Your task to perform on an android device: Open Chrome and go to settings Image 0: 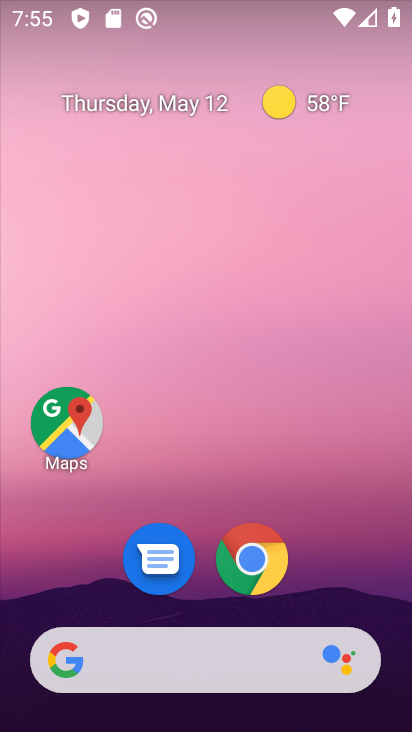
Step 0: click (249, 559)
Your task to perform on an android device: Open Chrome and go to settings Image 1: 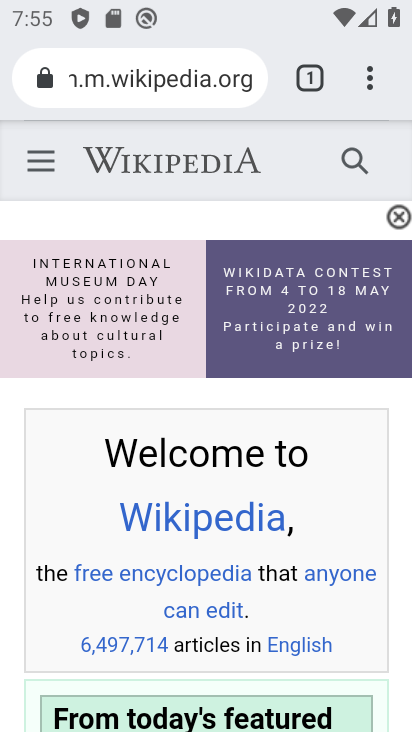
Step 1: click (369, 79)
Your task to perform on an android device: Open Chrome and go to settings Image 2: 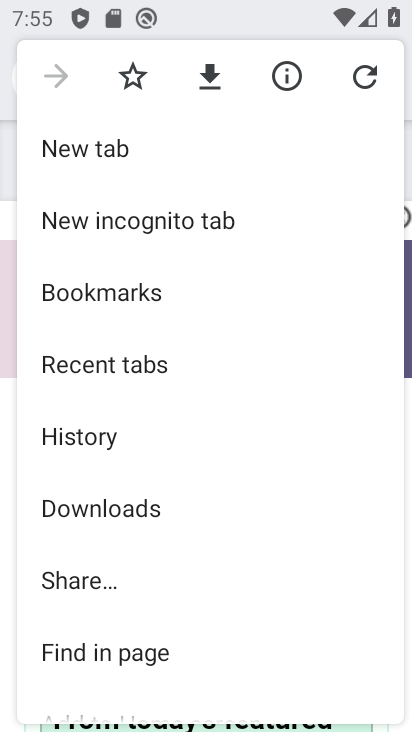
Step 2: drag from (185, 491) to (224, 380)
Your task to perform on an android device: Open Chrome and go to settings Image 3: 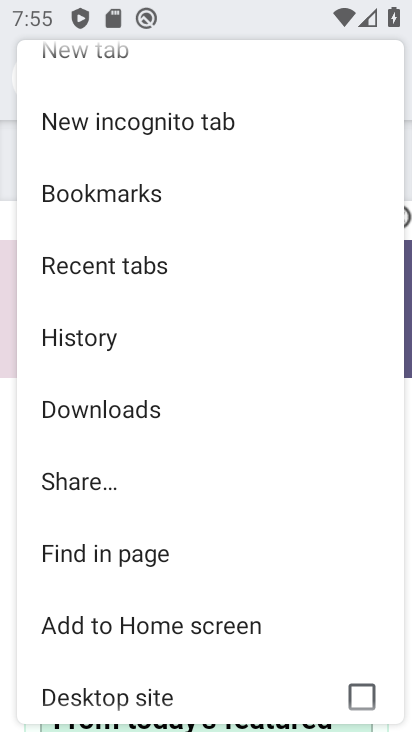
Step 3: drag from (197, 565) to (252, 432)
Your task to perform on an android device: Open Chrome and go to settings Image 4: 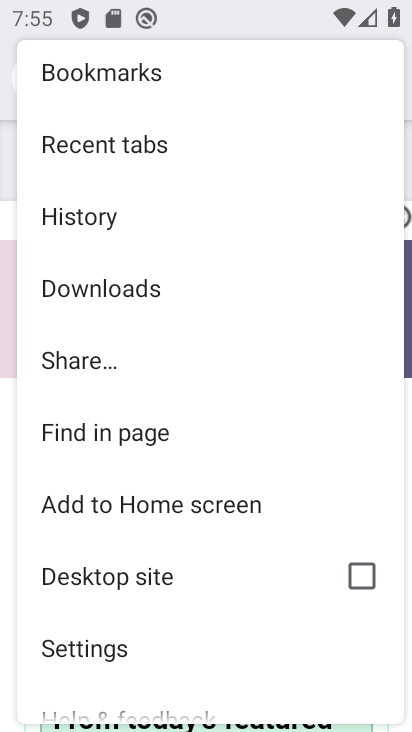
Step 4: drag from (166, 624) to (241, 485)
Your task to perform on an android device: Open Chrome and go to settings Image 5: 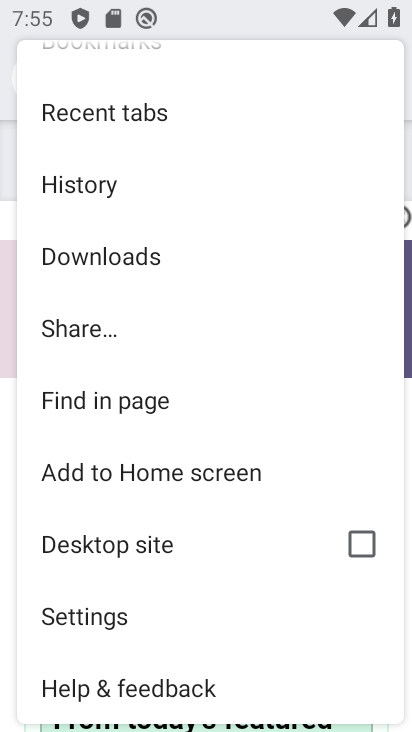
Step 5: click (96, 622)
Your task to perform on an android device: Open Chrome and go to settings Image 6: 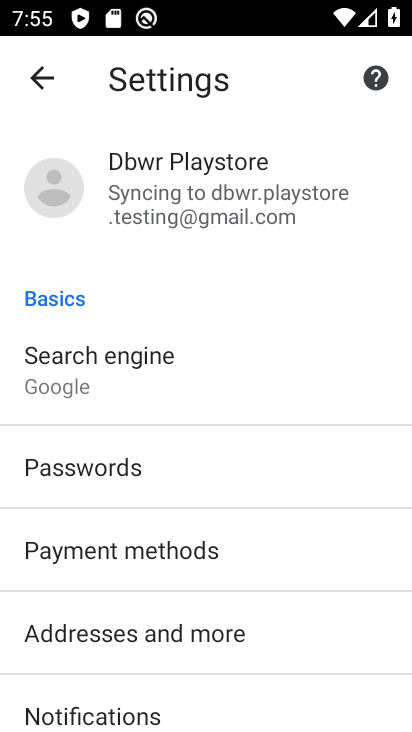
Step 6: task complete